Your task to perform on an android device: Do I have any events tomorrow? Image 0: 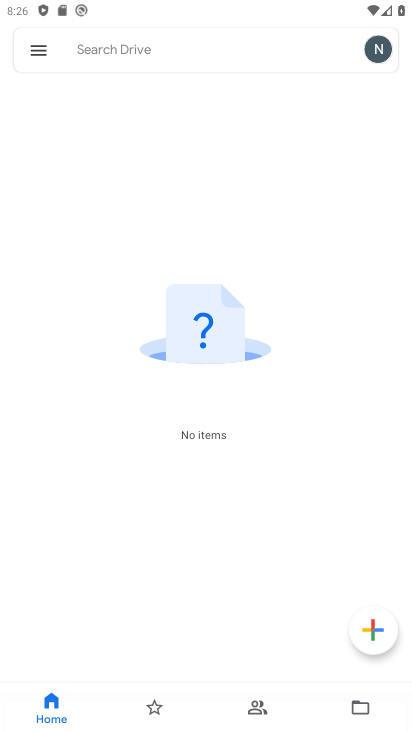
Step 0: press home button
Your task to perform on an android device: Do I have any events tomorrow? Image 1: 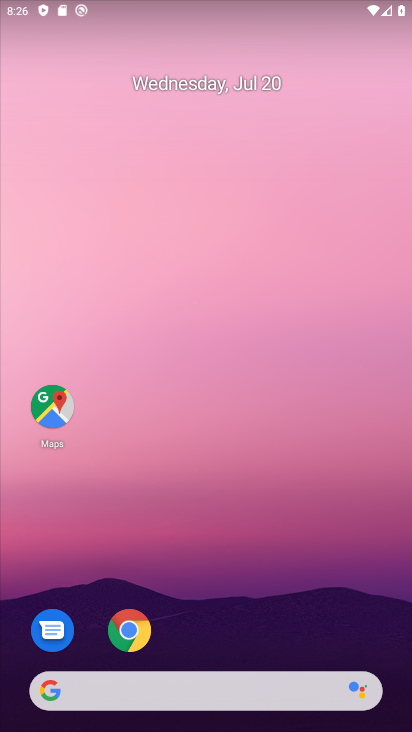
Step 1: drag from (248, 589) to (273, 164)
Your task to perform on an android device: Do I have any events tomorrow? Image 2: 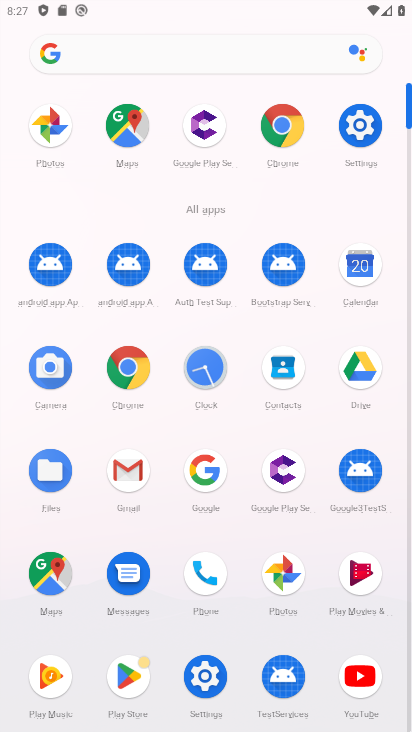
Step 2: click (353, 267)
Your task to perform on an android device: Do I have any events tomorrow? Image 3: 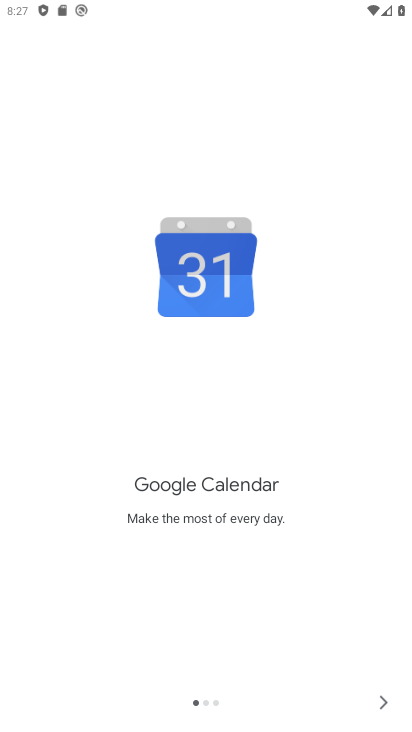
Step 3: click (382, 701)
Your task to perform on an android device: Do I have any events tomorrow? Image 4: 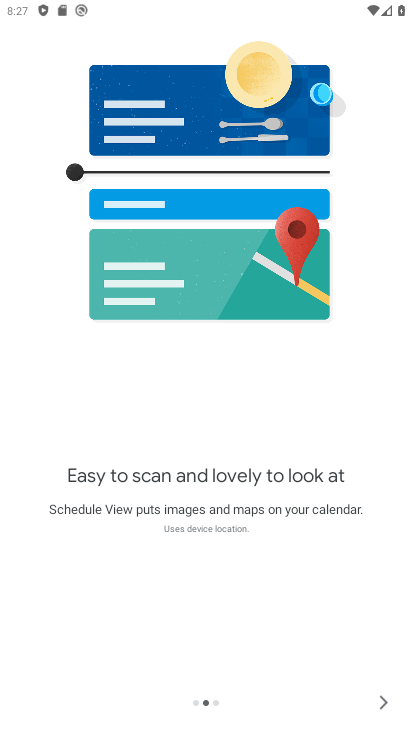
Step 4: click (382, 701)
Your task to perform on an android device: Do I have any events tomorrow? Image 5: 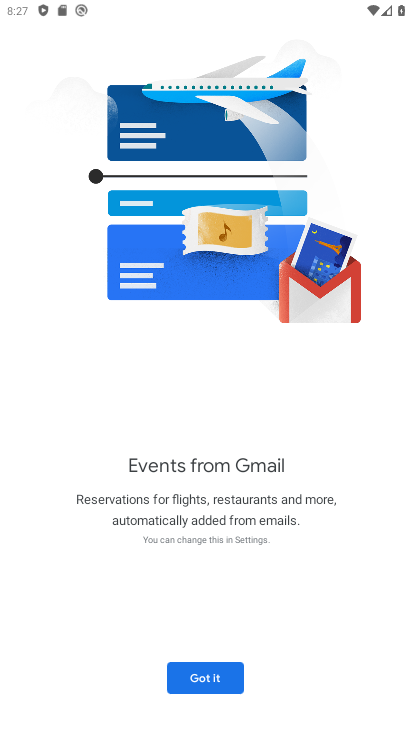
Step 5: click (217, 678)
Your task to perform on an android device: Do I have any events tomorrow? Image 6: 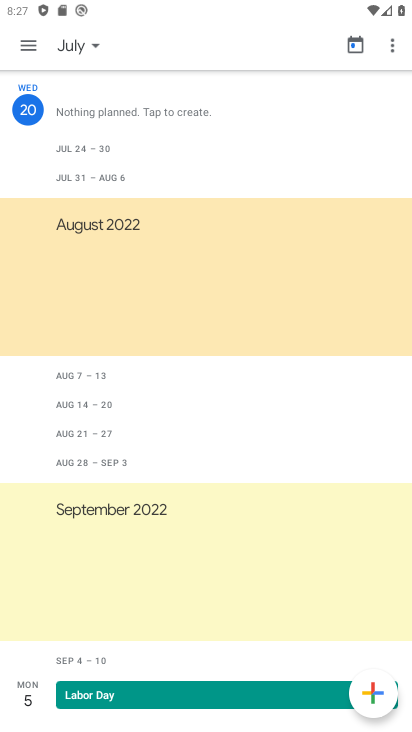
Step 6: click (93, 46)
Your task to perform on an android device: Do I have any events tomorrow? Image 7: 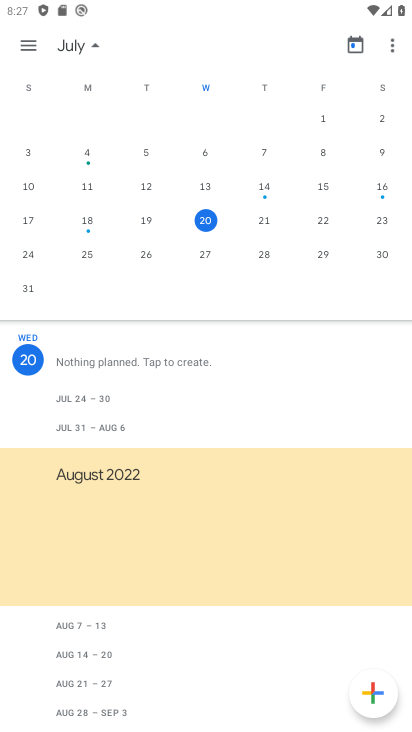
Step 7: click (257, 226)
Your task to perform on an android device: Do I have any events tomorrow? Image 8: 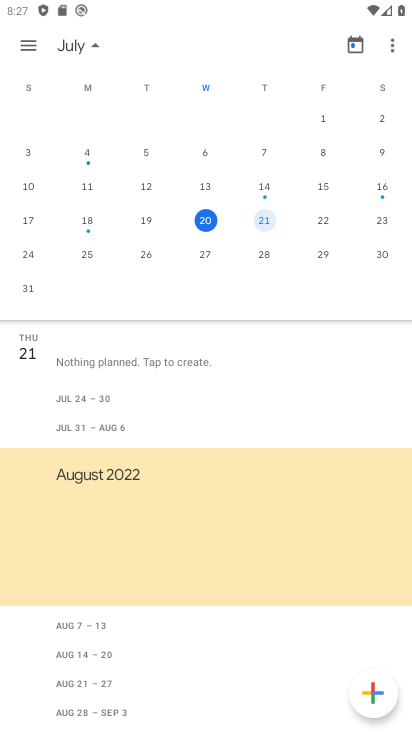
Step 8: click (257, 226)
Your task to perform on an android device: Do I have any events tomorrow? Image 9: 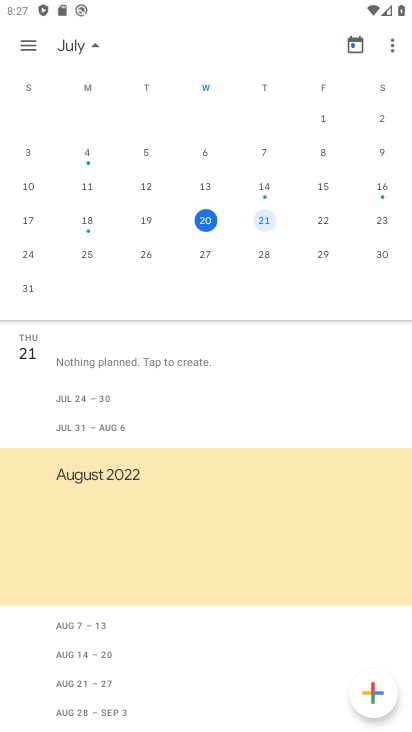
Step 9: task complete